Your task to perform on an android device: Go to battery settings Image 0: 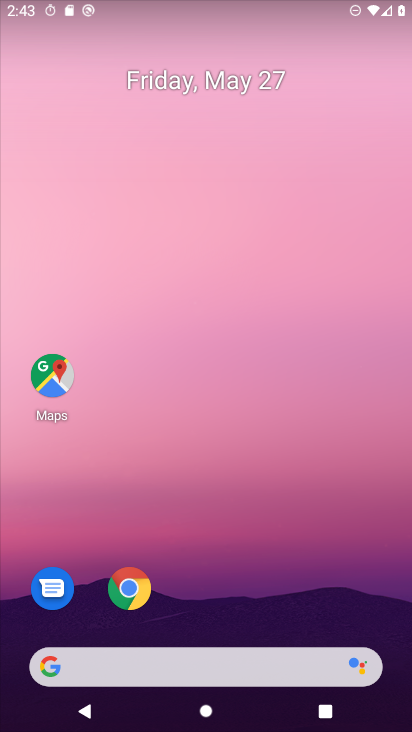
Step 0: drag from (246, 591) to (227, 84)
Your task to perform on an android device: Go to battery settings Image 1: 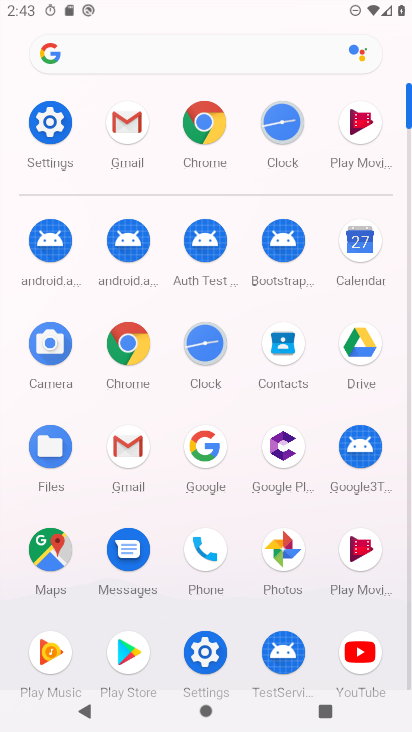
Step 1: click (55, 121)
Your task to perform on an android device: Go to battery settings Image 2: 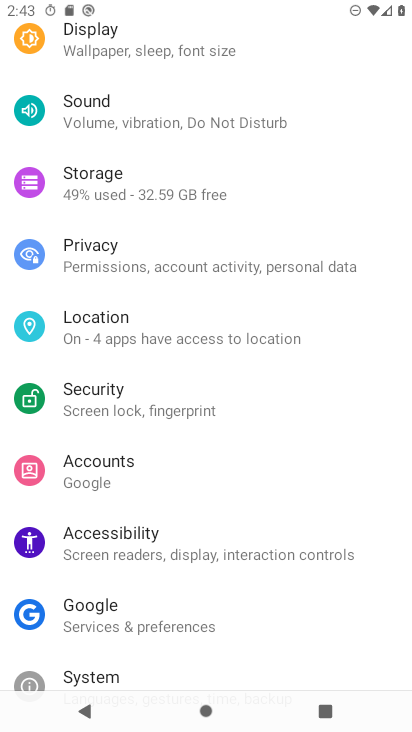
Step 2: drag from (131, 132) to (162, 472)
Your task to perform on an android device: Go to battery settings Image 3: 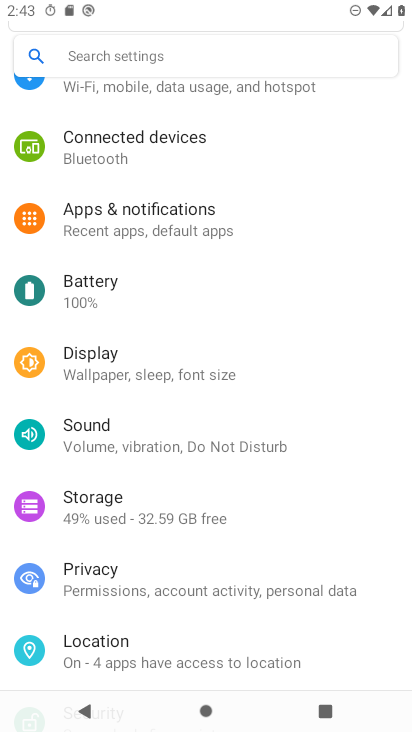
Step 3: drag from (107, 143) to (113, 558)
Your task to perform on an android device: Go to battery settings Image 4: 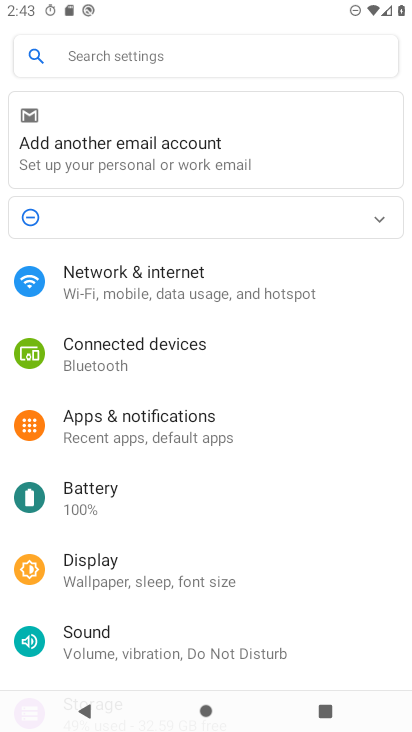
Step 4: click (136, 505)
Your task to perform on an android device: Go to battery settings Image 5: 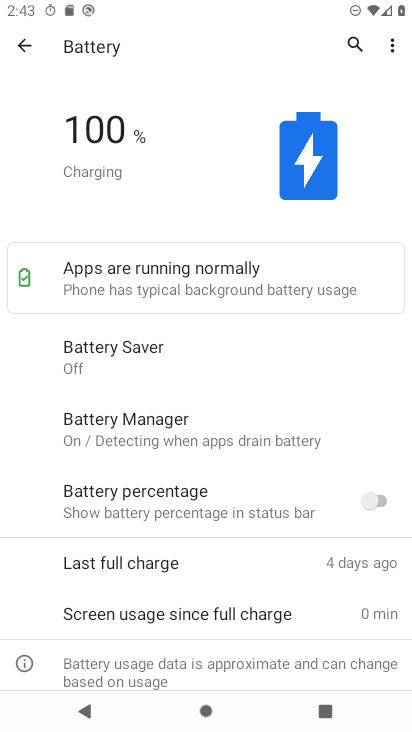
Step 5: task complete